Your task to perform on an android device: Go to settings Image 0: 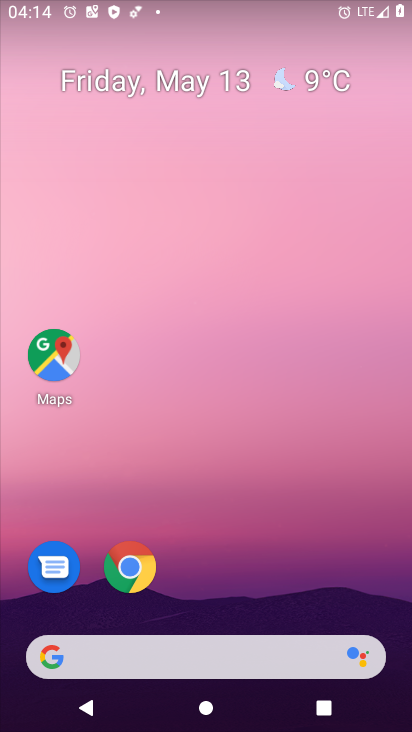
Step 0: drag from (318, 610) to (330, 20)
Your task to perform on an android device: Go to settings Image 1: 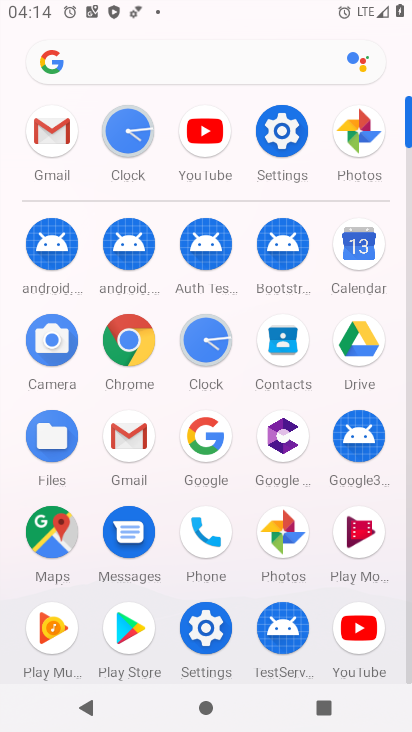
Step 1: click (284, 143)
Your task to perform on an android device: Go to settings Image 2: 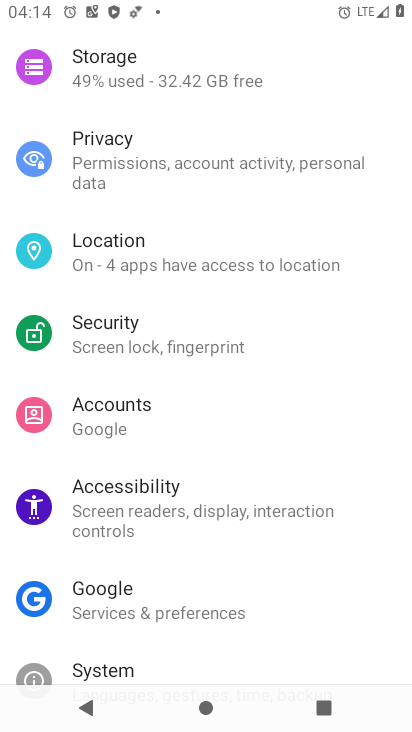
Step 2: task complete